Your task to perform on an android device: Open internet settings Image 0: 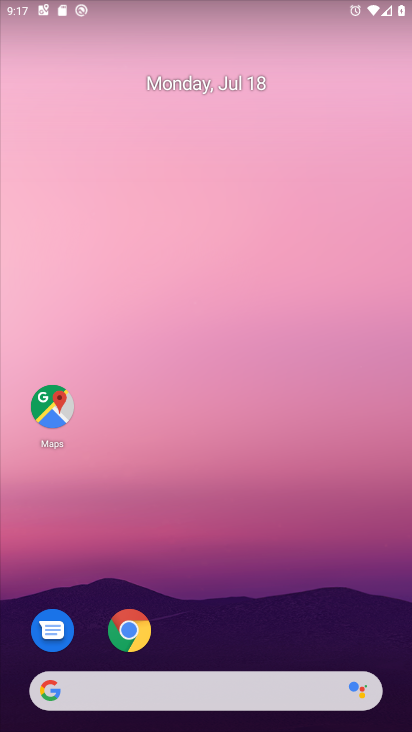
Step 0: drag from (197, 639) to (185, 222)
Your task to perform on an android device: Open internet settings Image 1: 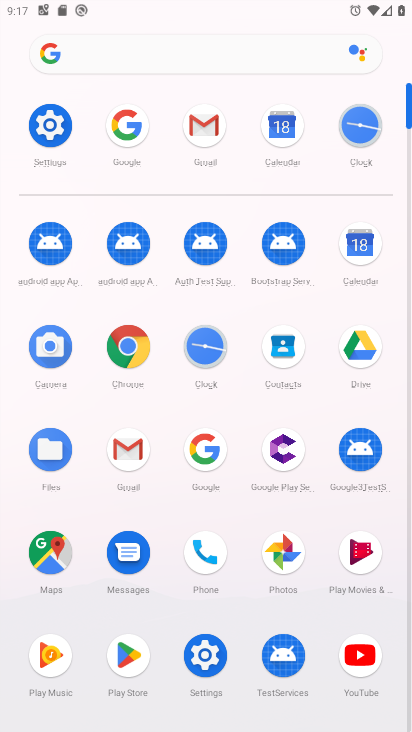
Step 1: click (51, 118)
Your task to perform on an android device: Open internet settings Image 2: 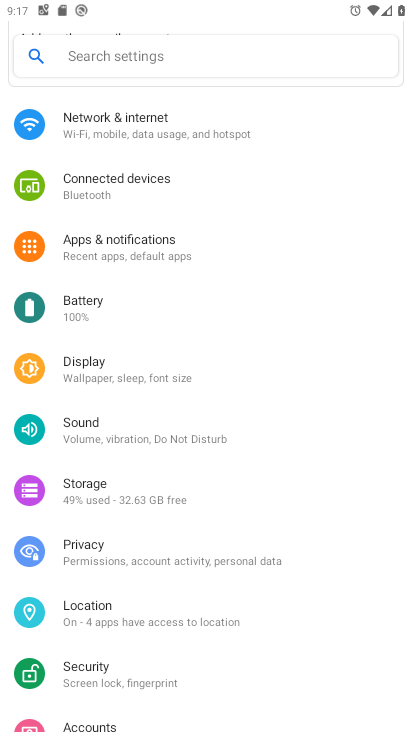
Step 2: click (73, 127)
Your task to perform on an android device: Open internet settings Image 3: 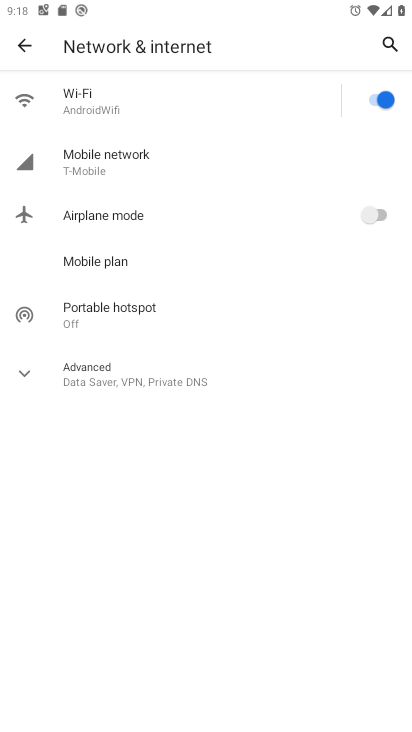
Step 3: task complete